Your task to perform on an android device: Show me popular games on the Play Store Image 0: 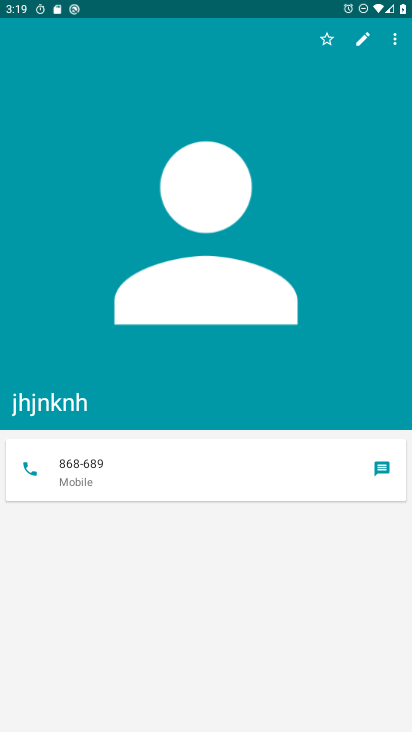
Step 0: press home button
Your task to perform on an android device: Show me popular games on the Play Store Image 1: 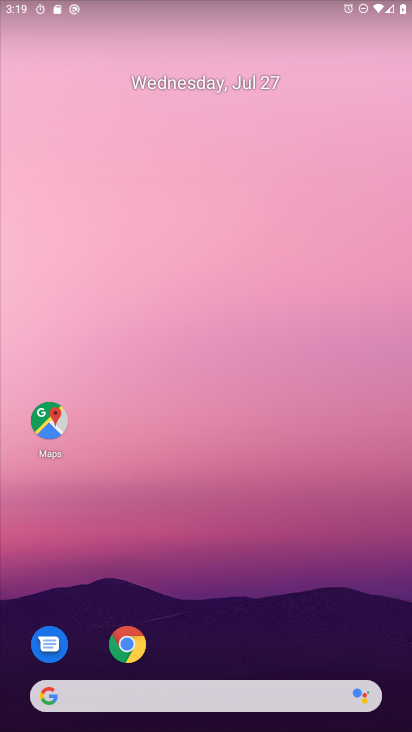
Step 1: drag from (243, 628) to (306, 340)
Your task to perform on an android device: Show me popular games on the Play Store Image 2: 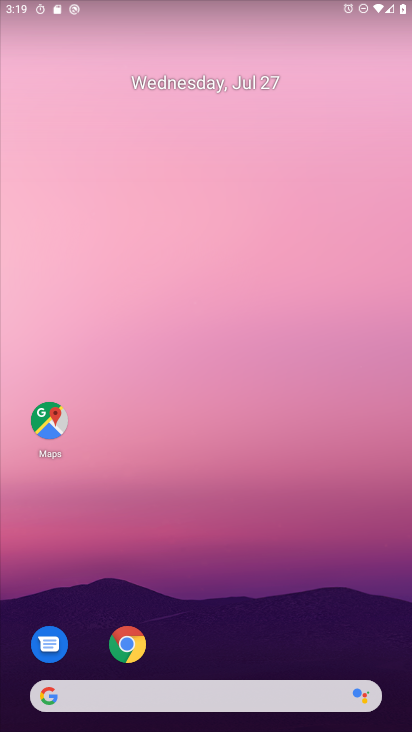
Step 2: drag from (202, 558) to (274, 10)
Your task to perform on an android device: Show me popular games on the Play Store Image 3: 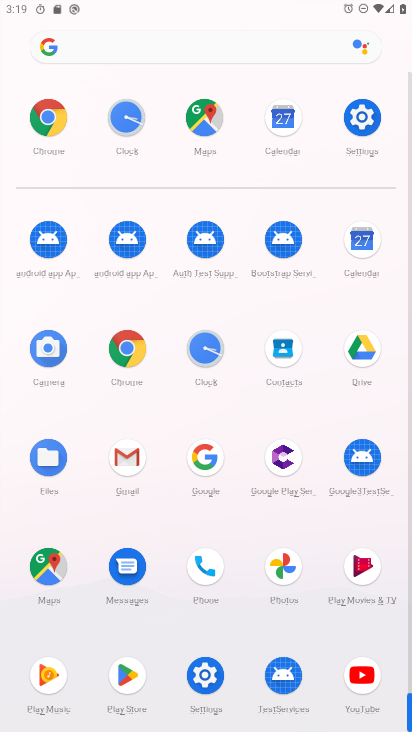
Step 3: drag from (199, 643) to (241, 218)
Your task to perform on an android device: Show me popular games on the Play Store Image 4: 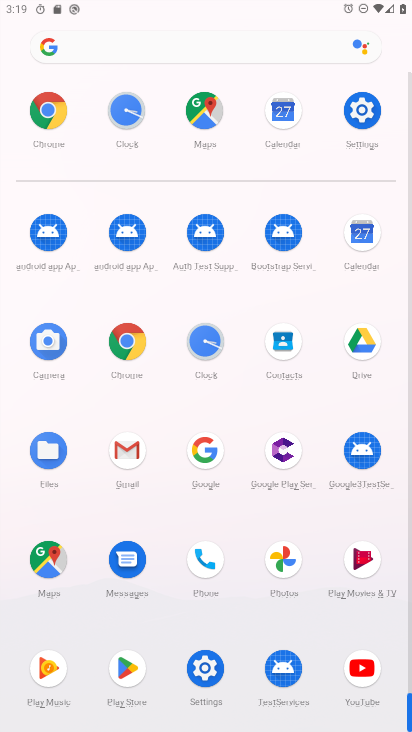
Step 4: click (111, 670)
Your task to perform on an android device: Show me popular games on the Play Store Image 5: 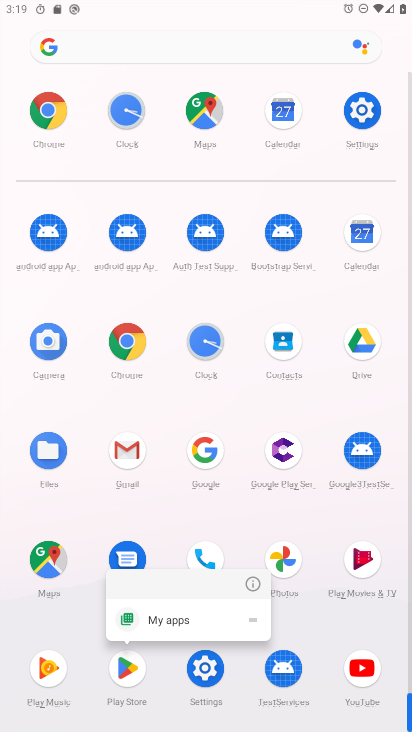
Step 5: click (242, 579)
Your task to perform on an android device: Show me popular games on the Play Store Image 6: 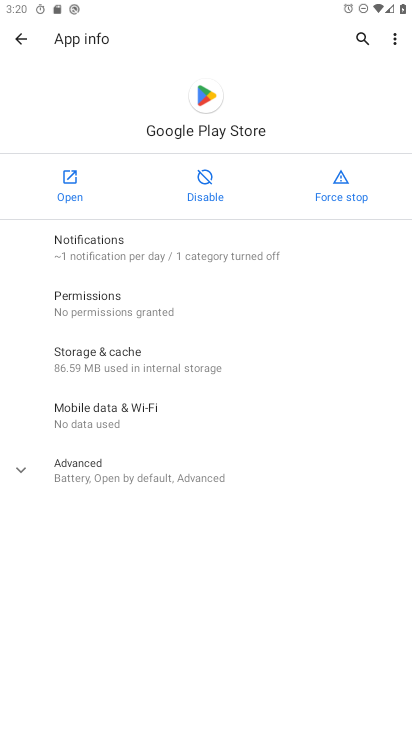
Step 6: click (78, 208)
Your task to perform on an android device: Show me popular games on the Play Store Image 7: 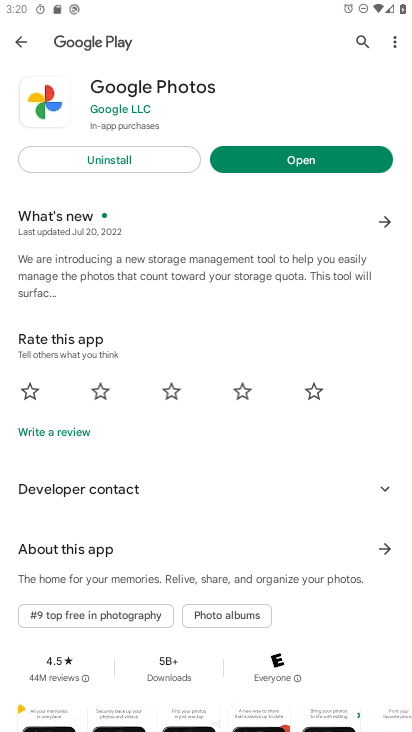
Step 7: drag from (157, 539) to (237, 147)
Your task to perform on an android device: Show me popular games on the Play Store Image 8: 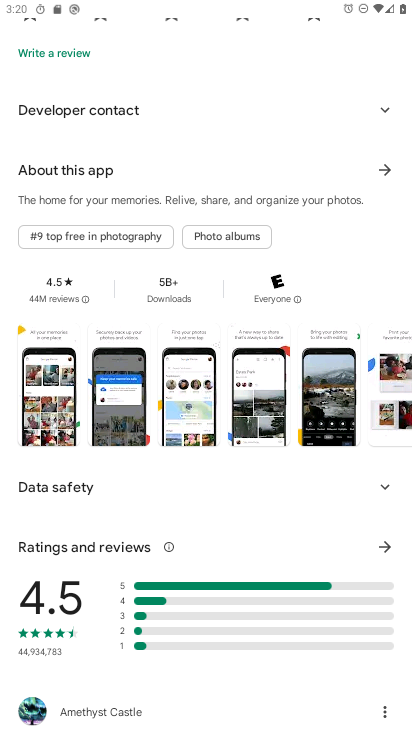
Step 8: drag from (231, 140) to (309, 729)
Your task to perform on an android device: Show me popular games on the Play Store Image 9: 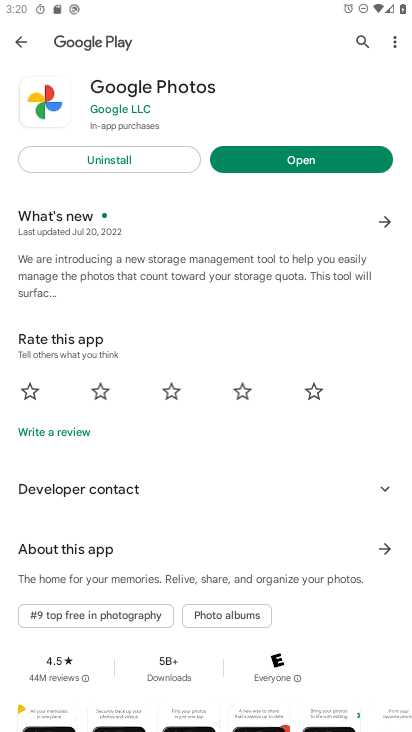
Step 9: click (17, 45)
Your task to perform on an android device: Show me popular games on the Play Store Image 10: 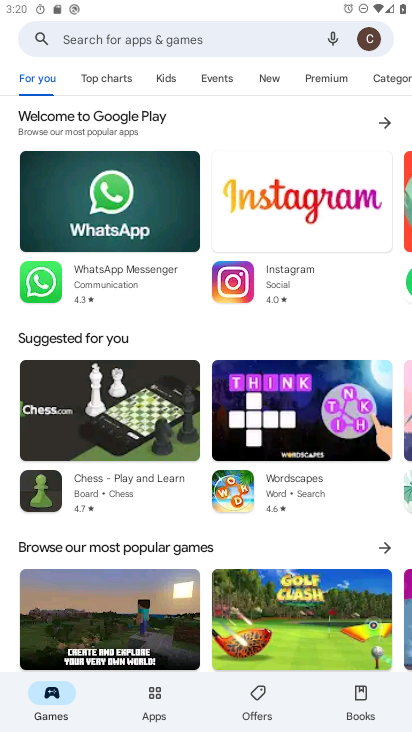
Step 10: click (389, 542)
Your task to perform on an android device: Show me popular games on the Play Store Image 11: 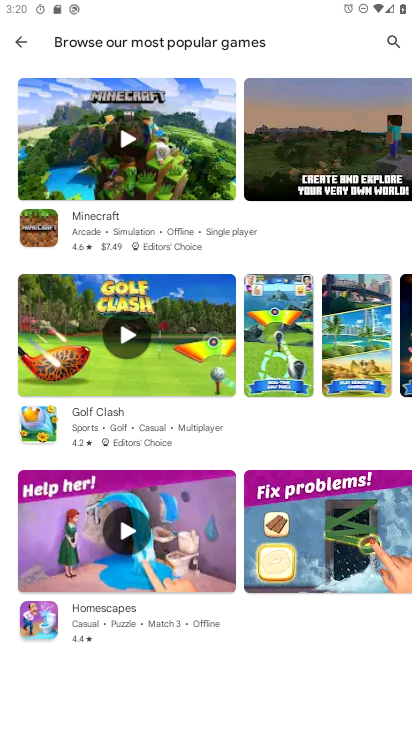
Step 11: task complete